Your task to perform on an android device: Check the news Image 0: 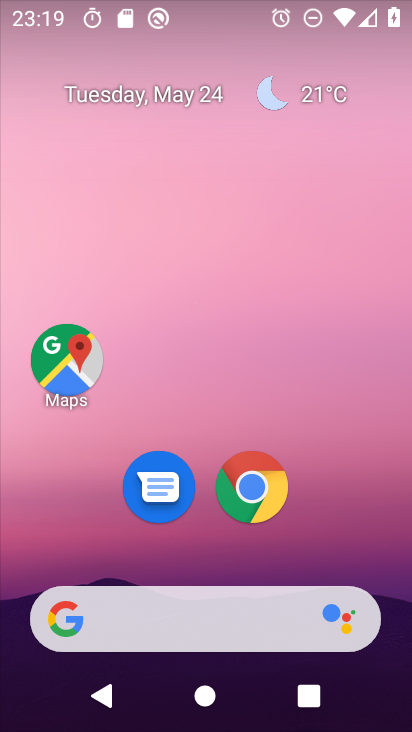
Step 0: click (129, 613)
Your task to perform on an android device: Check the news Image 1: 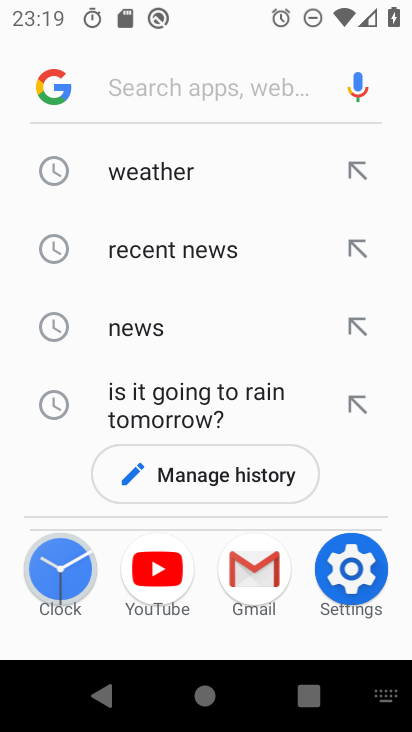
Step 1: click (130, 323)
Your task to perform on an android device: Check the news Image 2: 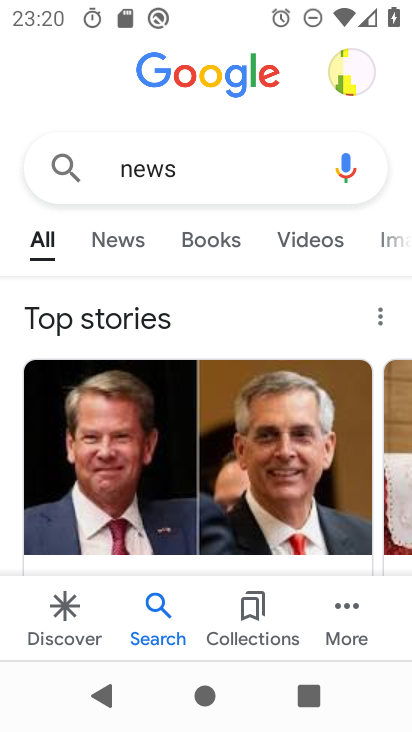
Step 2: click (128, 240)
Your task to perform on an android device: Check the news Image 3: 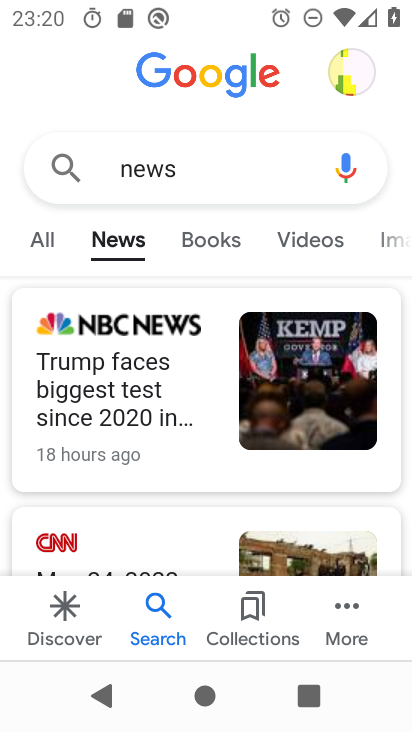
Step 3: task complete